Your task to perform on an android device: Find coffee shops on Maps Image 0: 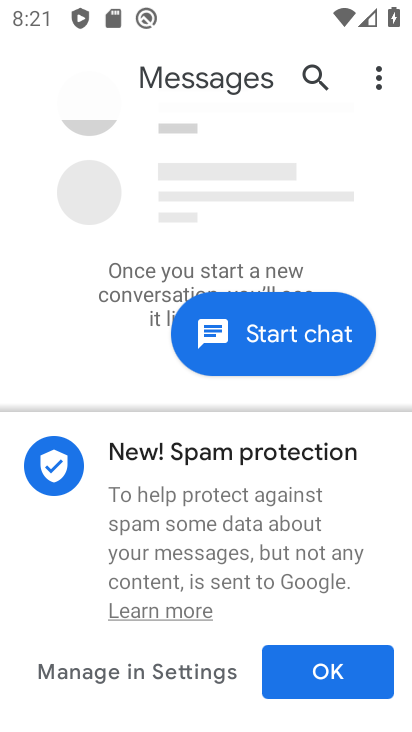
Step 0: press home button
Your task to perform on an android device: Find coffee shops on Maps Image 1: 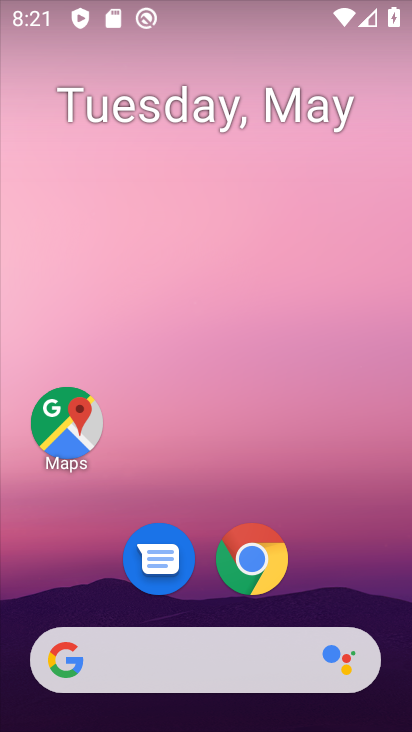
Step 1: click (83, 417)
Your task to perform on an android device: Find coffee shops on Maps Image 2: 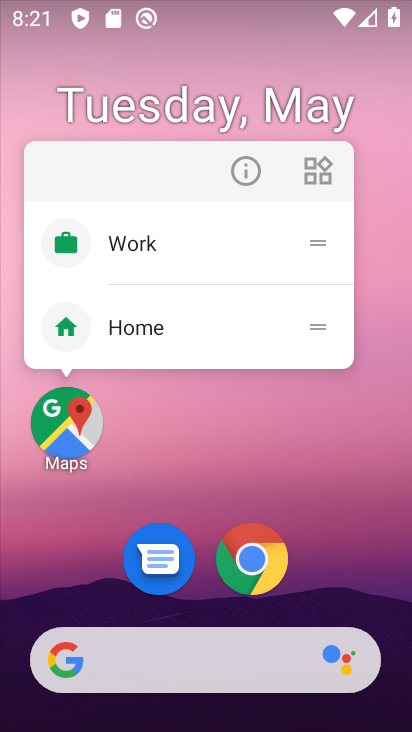
Step 2: click (83, 417)
Your task to perform on an android device: Find coffee shops on Maps Image 3: 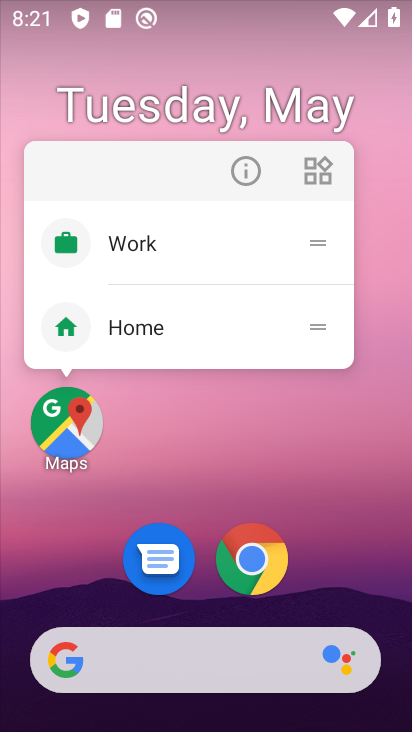
Step 3: click (62, 420)
Your task to perform on an android device: Find coffee shops on Maps Image 4: 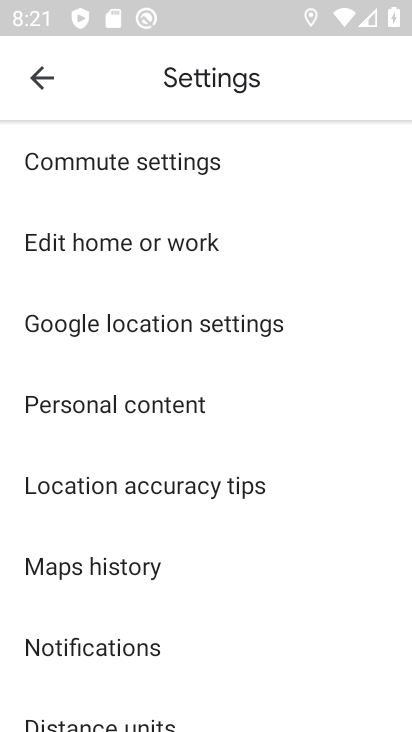
Step 4: click (31, 91)
Your task to perform on an android device: Find coffee shops on Maps Image 5: 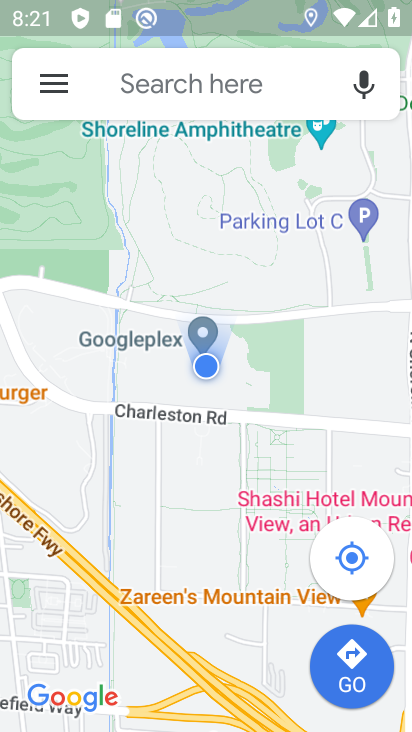
Step 5: click (163, 82)
Your task to perform on an android device: Find coffee shops on Maps Image 6: 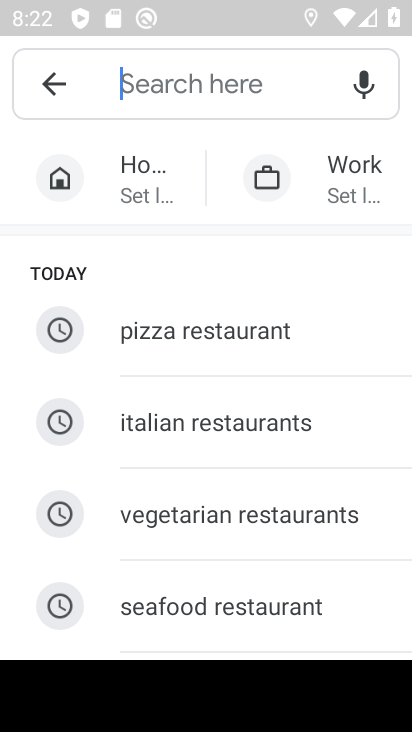
Step 6: type "coffee shops"
Your task to perform on an android device: Find coffee shops on Maps Image 7: 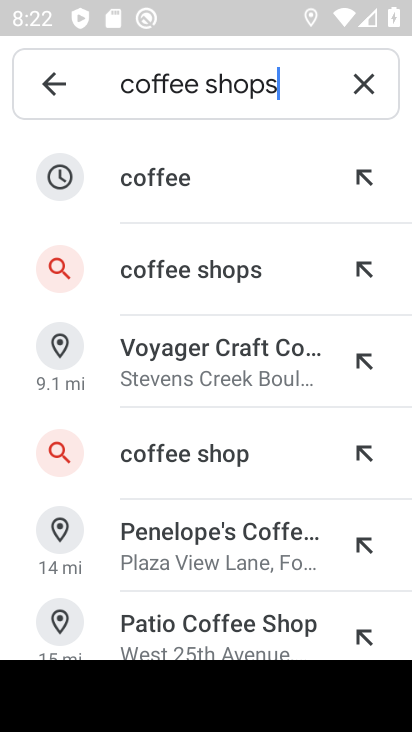
Step 7: click (155, 296)
Your task to perform on an android device: Find coffee shops on Maps Image 8: 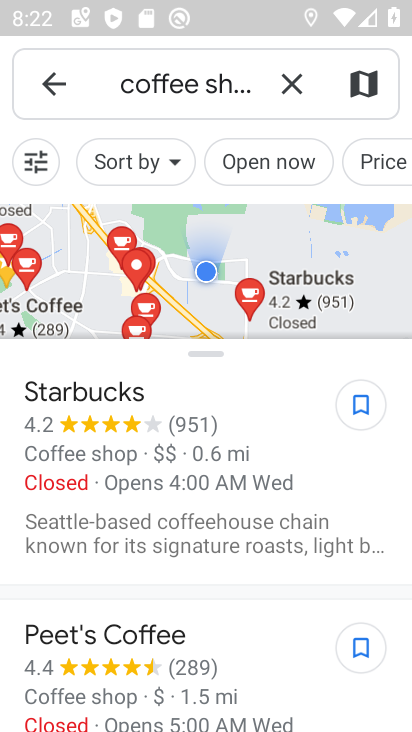
Step 8: task complete